Your task to perform on an android device: create a new album in the google photos Image 0: 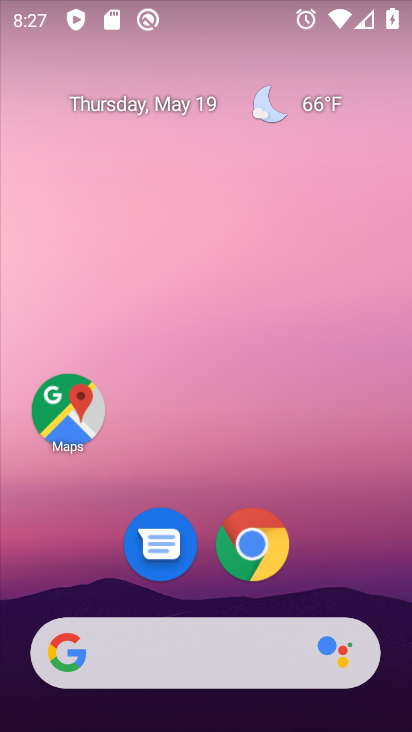
Step 0: drag from (385, 644) to (294, 112)
Your task to perform on an android device: create a new album in the google photos Image 1: 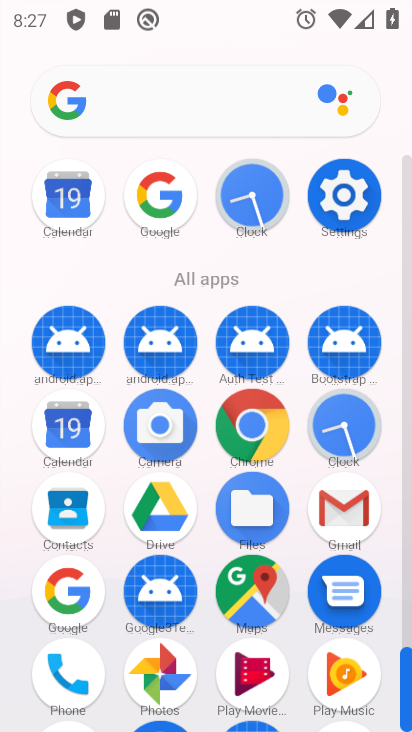
Step 1: click (166, 663)
Your task to perform on an android device: create a new album in the google photos Image 2: 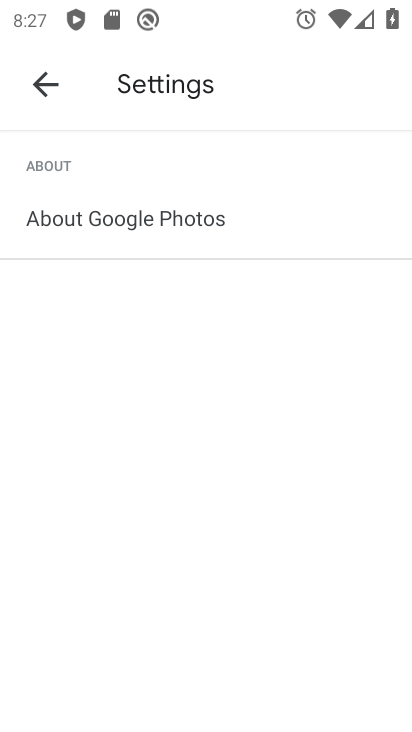
Step 2: press back button
Your task to perform on an android device: create a new album in the google photos Image 3: 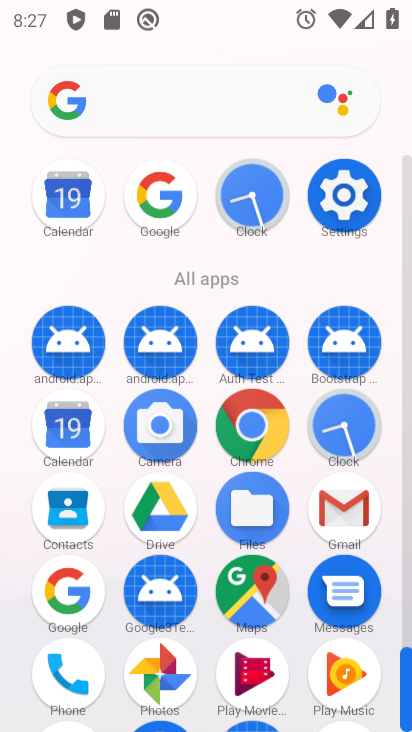
Step 3: click (137, 696)
Your task to perform on an android device: create a new album in the google photos Image 4: 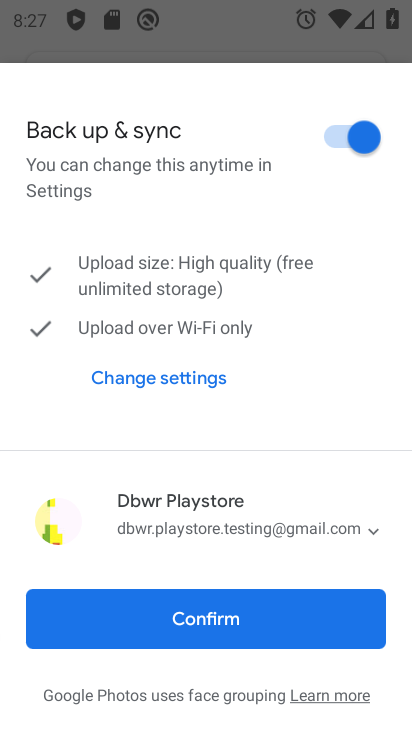
Step 4: click (250, 621)
Your task to perform on an android device: create a new album in the google photos Image 5: 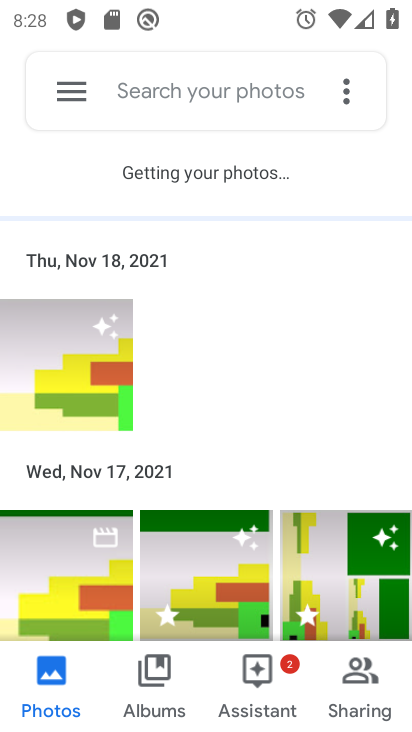
Step 5: click (89, 357)
Your task to perform on an android device: create a new album in the google photos Image 6: 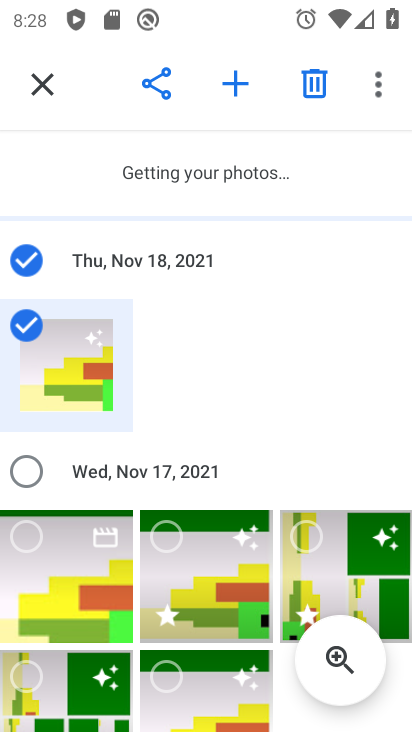
Step 6: click (234, 82)
Your task to perform on an android device: create a new album in the google photos Image 7: 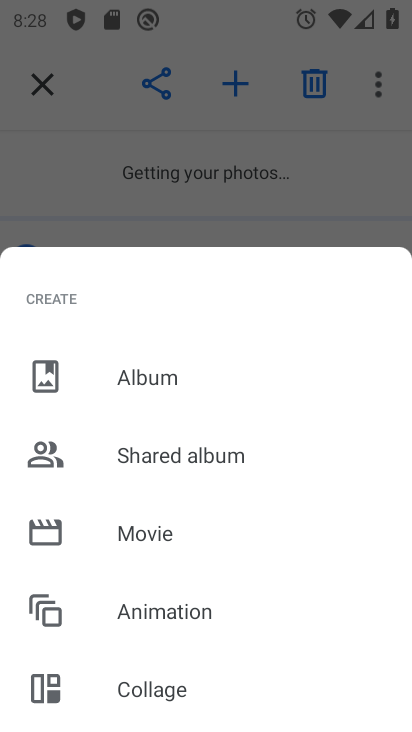
Step 7: click (188, 367)
Your task to perform on an android device: create a new album in the google photos Image 8: 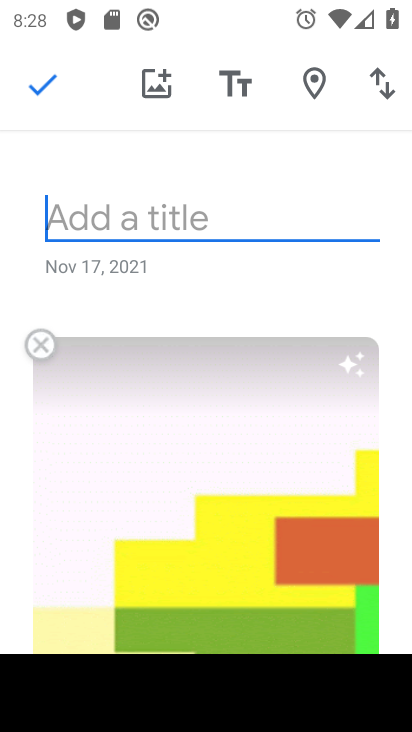
Step 8: type "MN"
Your task to perform on an android device: create a new album in the google photos Image 9: 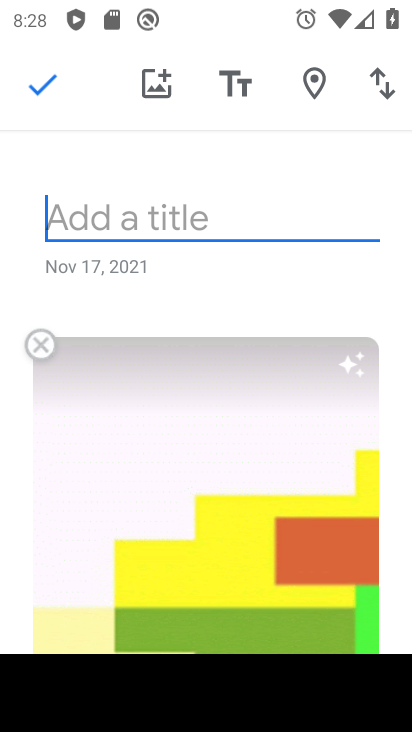
Step 9: click (5, 80)
Your task to perform on an android device: create a new album in the google photos Image 10: 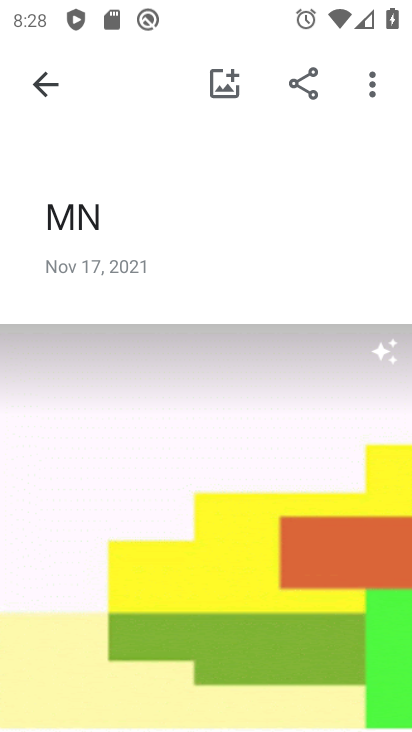
Step 10: task complete